Your task to perform on an android device: Open Google Chrome and click the shortcut for Amazon.com Image 0: 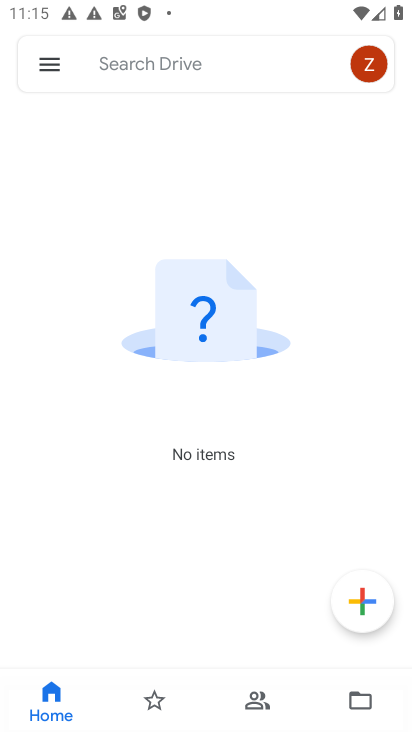
Step 0: press home button
Your task to perform on an android device: Open Google Chrome and click the shortcut for Amazon.com Image 1: 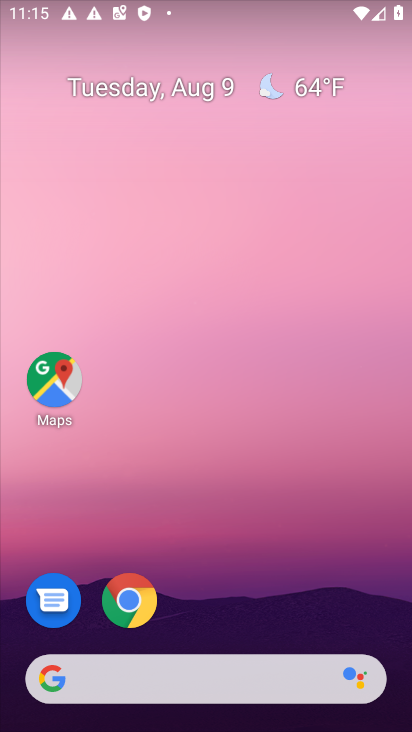
Step 1: click (129, 590)
Your task to perform on an android device: Open Google Chrome and click the shortcut for Amazon.com Image 2: 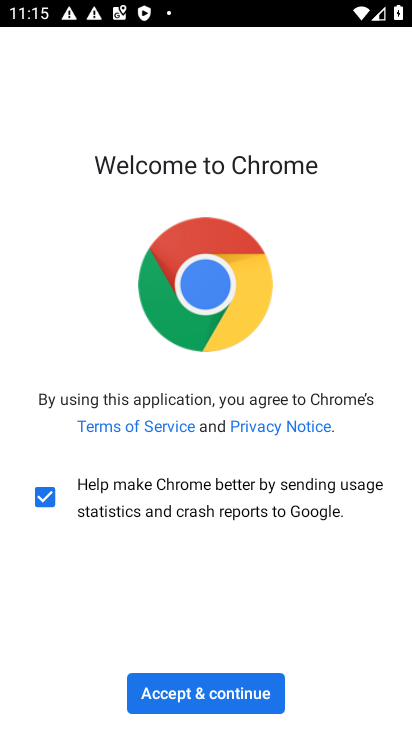
Step 2: click (220, 694)
Your task to perform on an android device: Open Google Chrome and click the shortcut for Amazon.com Image 3: 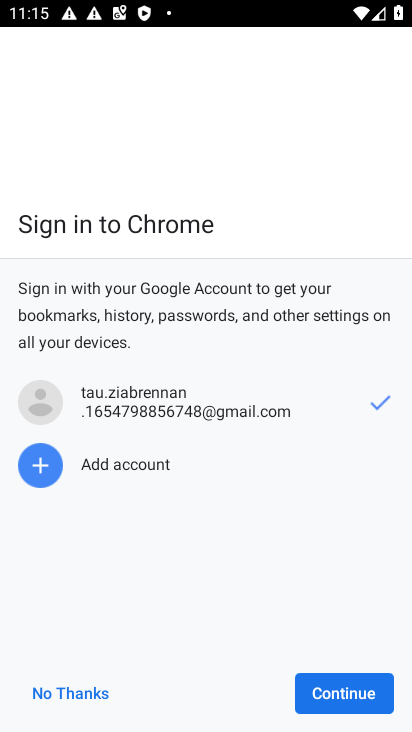
Step 3: click (337, 690)
Your task to perform on an android device: Open Google Chrome and click the shortcut for Amazon.com Image 4: 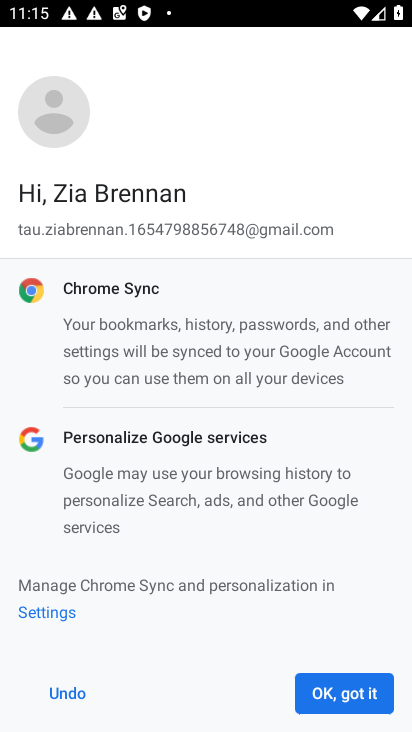
Step 4: click (337, 690)
Your task to perform on an android device: Open Google Chrome and click the shortcut for Amazon.com Image 5: 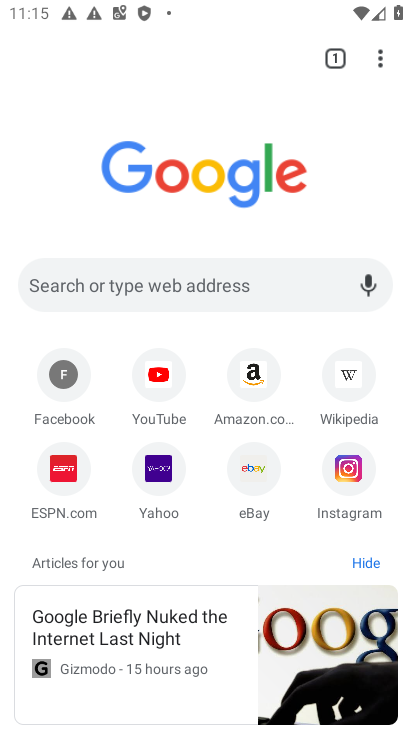
Step 5: click (252, 393)
Your task to perform on an android device: Open Google Chrome and click the shortcut for Amazon.com Image 6: 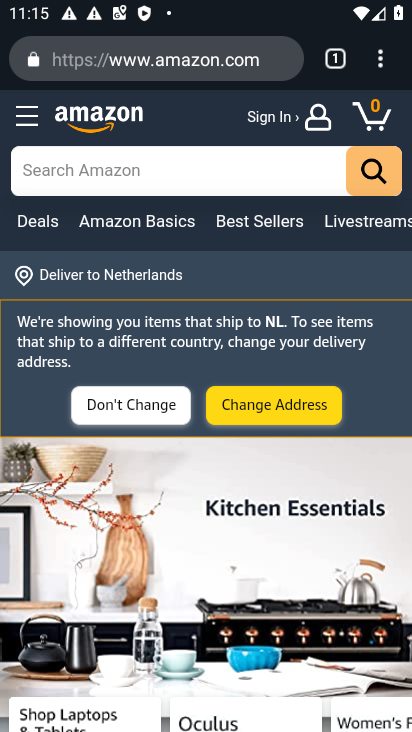
Step 6: task complete